Your task to perform on an android device: turn off wifi Image 0: 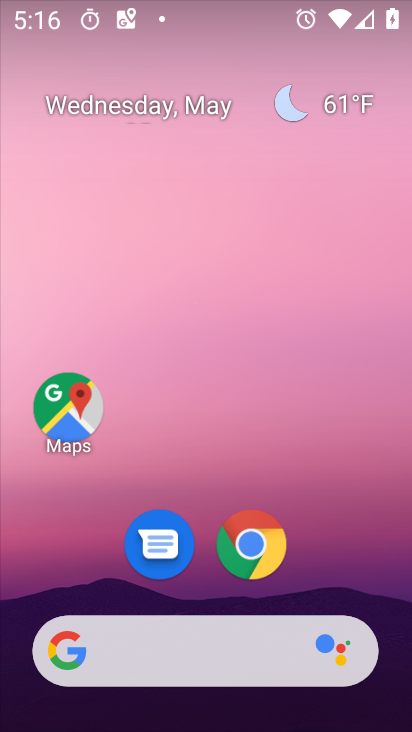
Step 0: drag from (201, 613) to (201, 112)
Your task to perform on an android device: turn off wifi Image 1: 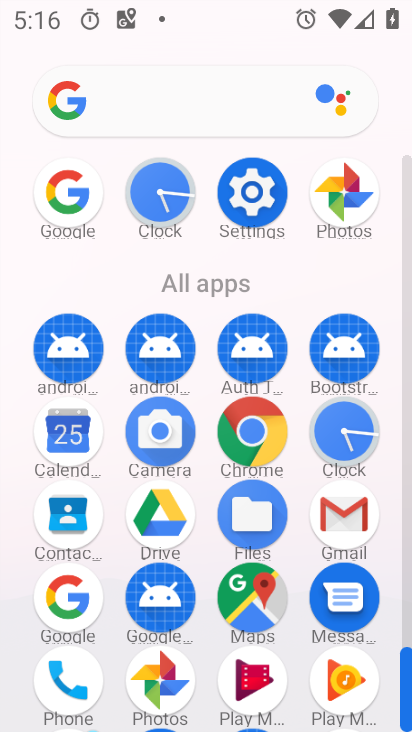
Step 1: click (260, 197)
Your task to perform on an android device: turn off wifi Image 2: 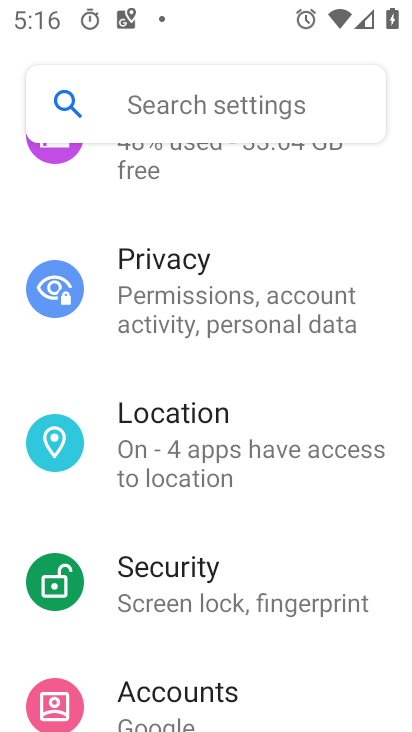
Step 2: drag from (235, 148) to (252, 682)
Your task to perform on an android device: turn off wifi Image 3: 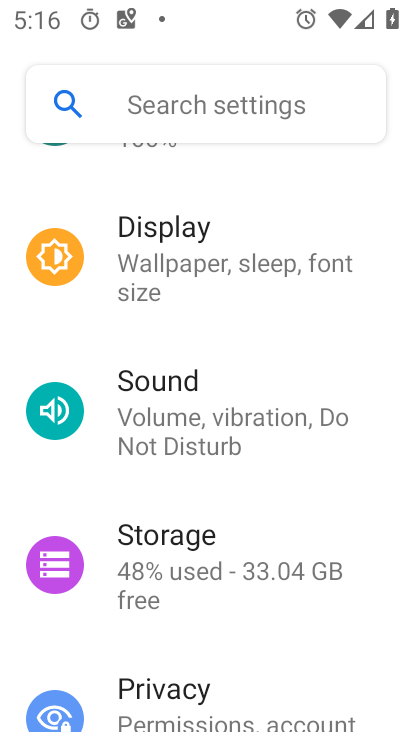
Step 3: drag from (220, 163) to (246, 611)
Your task to perform on an android device: turn off wifi Image 4: 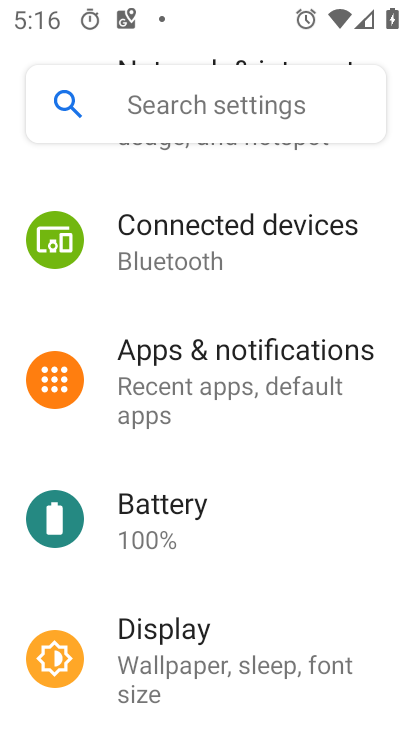
Step 4: drag from (229, 172) to (274, 635)
Your task to perform on an android device: turn off wifi Image 5: 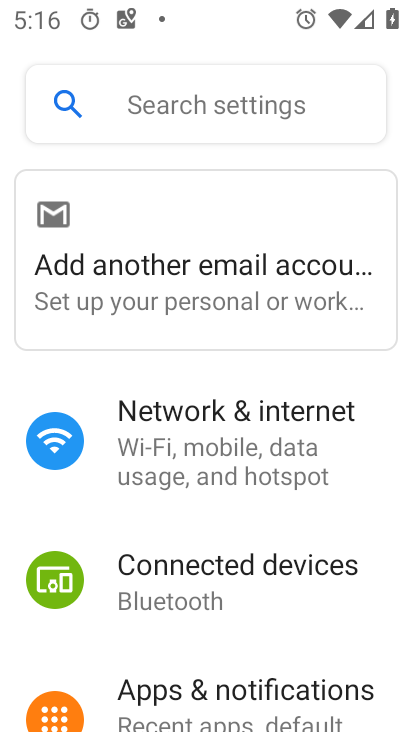
Step 5: click (255, 455)
Your task to perform on an android device: turn off wifi Image 6: 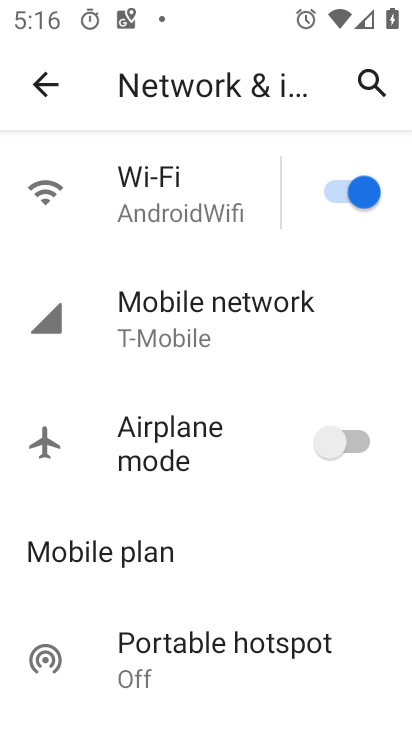
Step 6: click (324, 186)
Your task to perform on an android device: turn off wifi Image 7: 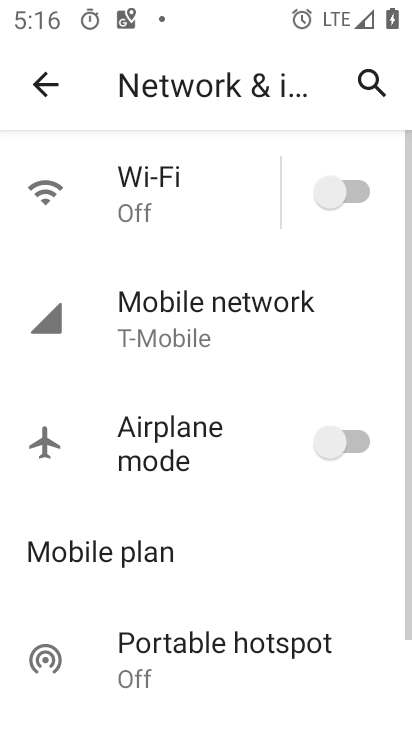
Step 7: task complete